Your task to perform on an android device: Show me recent news Image 0: 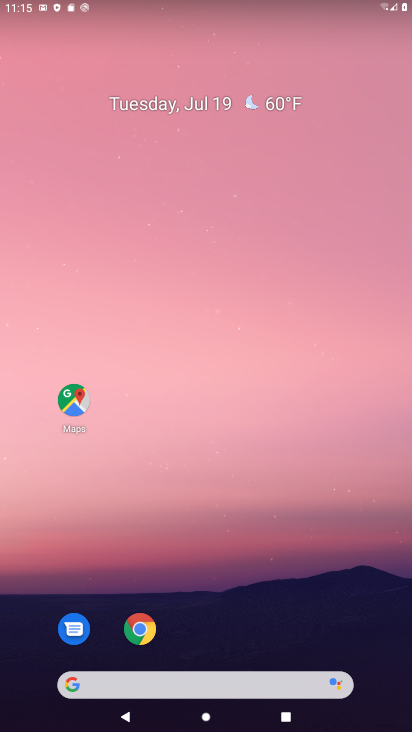
Step 0: click (211, 679)
Your task to perform on an android device: Show me recent news Image 1: 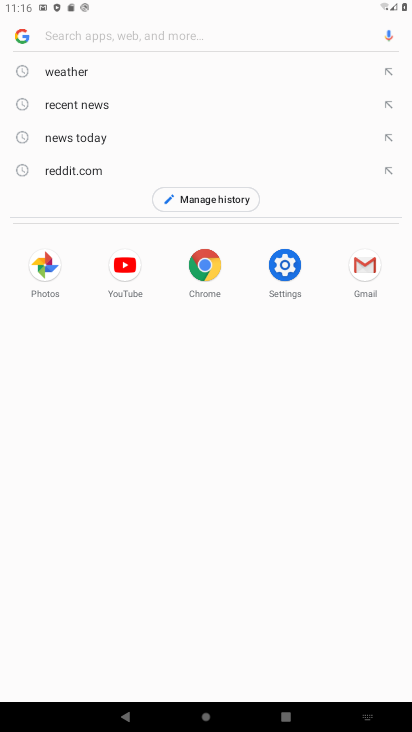
Step 1: type "recent news"
Your task to perform on an android device: Show me recent news Image 2: 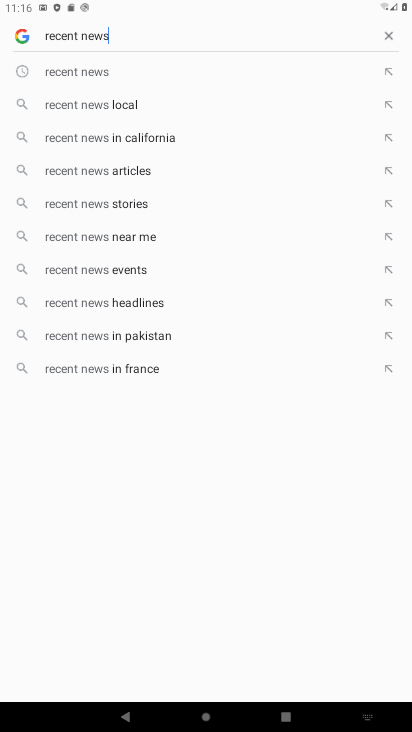
Step 2: click (192, 72)
Your task to perform on an android device: Show me recent news Image 3: 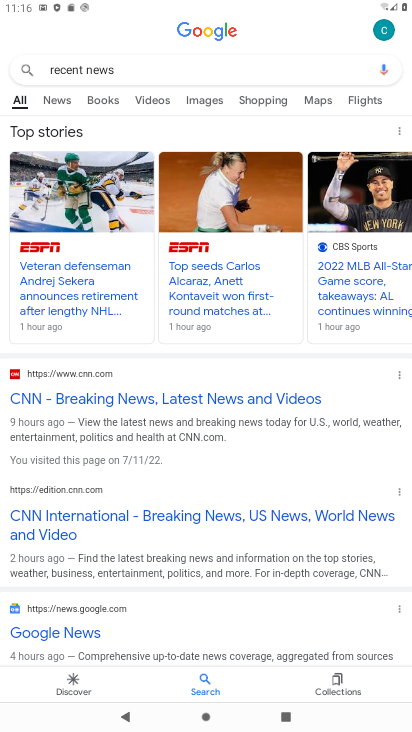
Step 3: click (47, 102)
Your task to perform on an android device: Show me recent news Image 4: 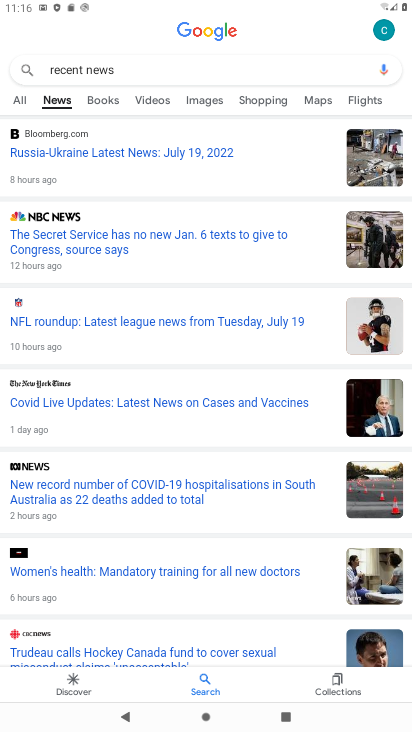
Step 4: task complete